Your task to perform on an android device: turn off airplane mode Image 0: 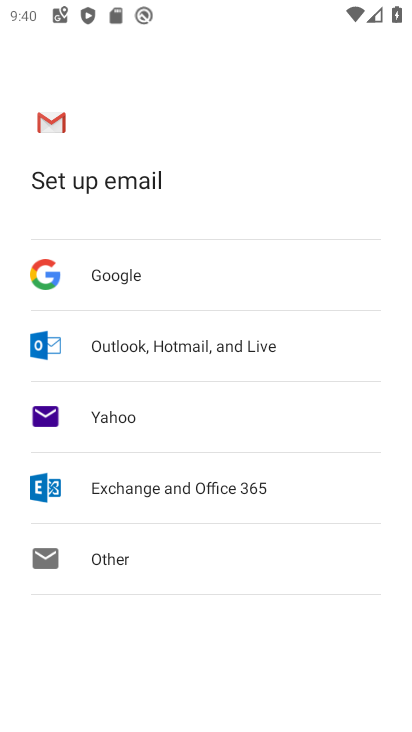
Step 0: press home button
Your task to perform on an android device: turn off airplane mode Image 1: 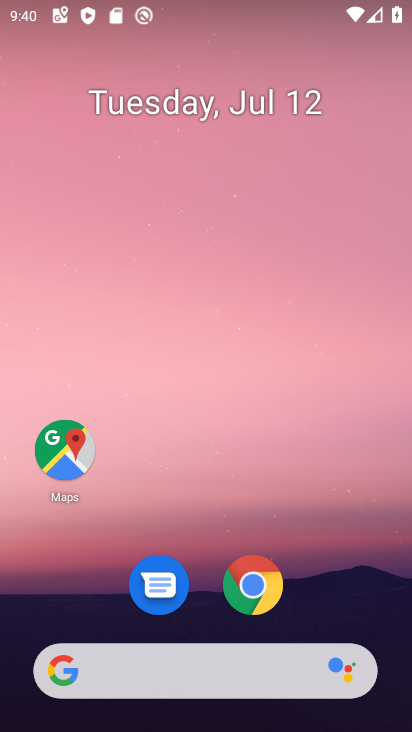
Step 1: drag from (262, 643) to (318, 169)
Your task to perform on an android device: turn off airplane mode Image 2: 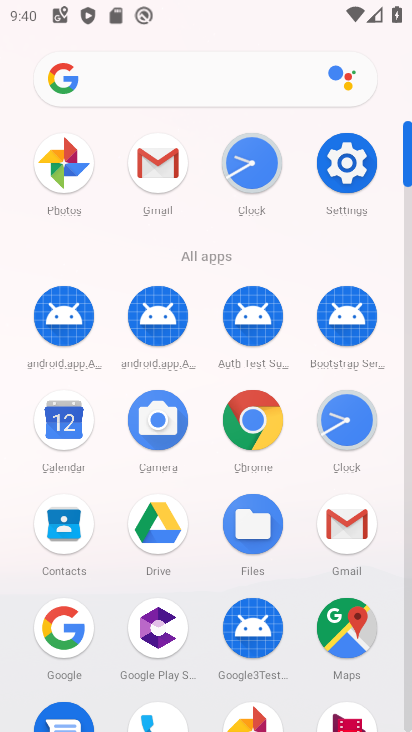
Step 2: click (347, 160)
Your task to perform on an android device: turn off airplane mode Image 3: 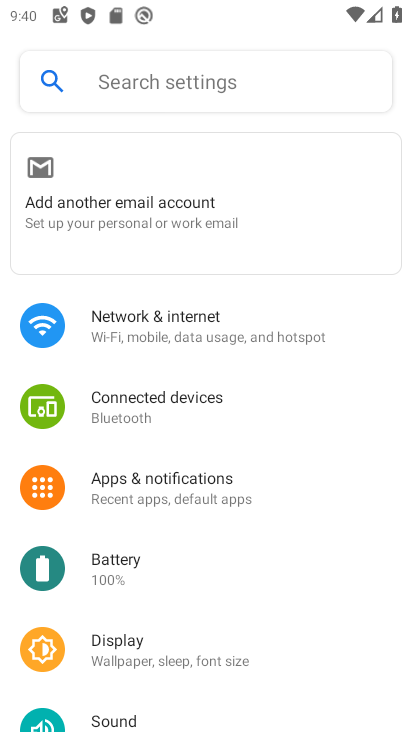
Step 3: click (200, 320)
Your task to perform on an android device: turn off airplane mode Image 4: 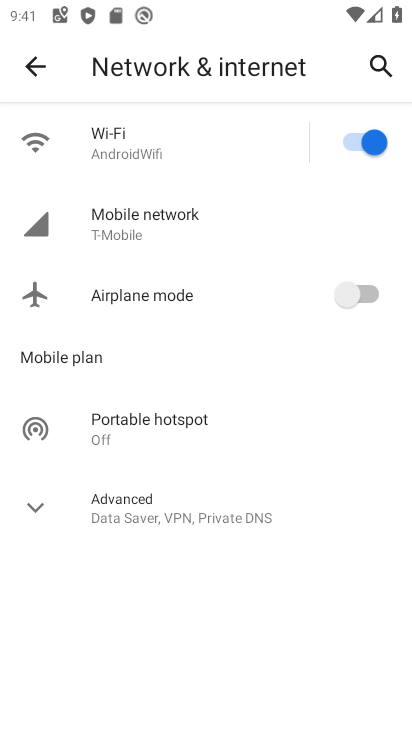
Step 4: task complete